Your task to perform on an android device: Open maps Image 0: 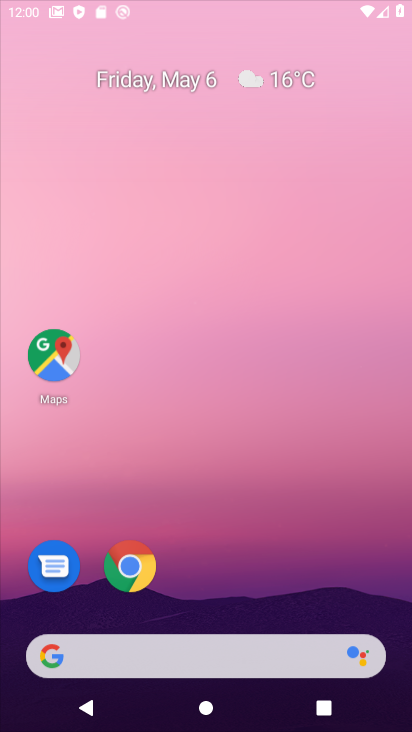
Step 0: click (313, 42)
Your task to perform on an android device: Open maps Image 1: 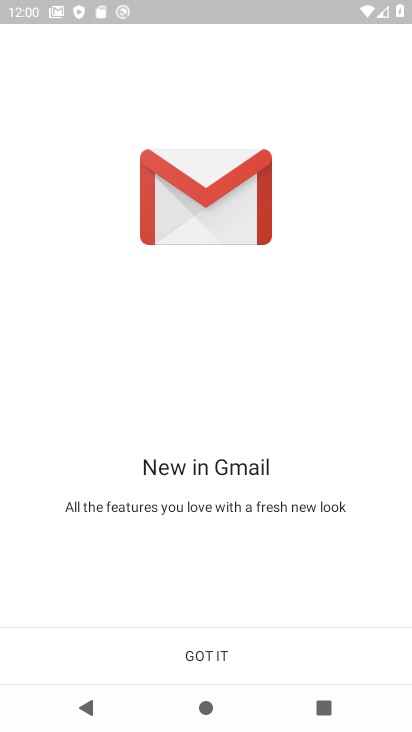
Step 1: press home button
Your task to perform on an android device: Open maps Image 2: 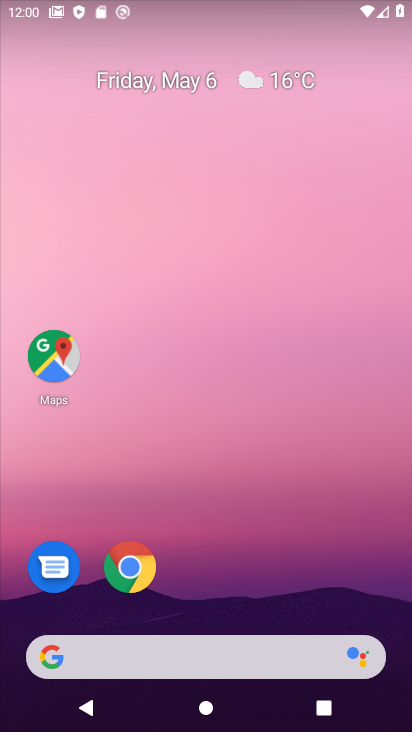
Step 2: drag from (263, 495) to (241, 7)
Your task to perform on an android device: Open maps Image 3: 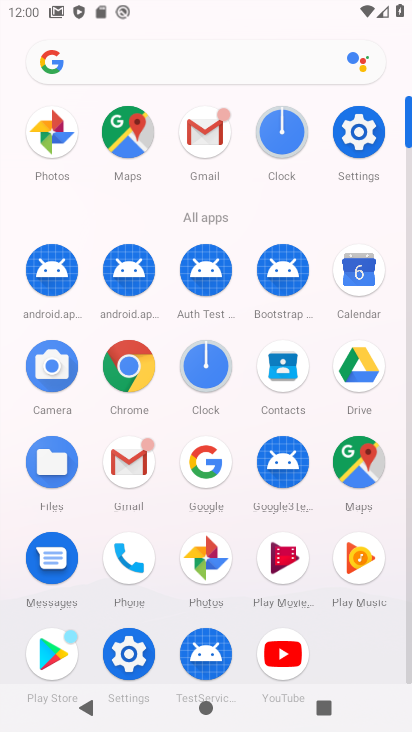
Step 3: click (268, 132)
Your task to perform on an android device: Open maps Image 4: 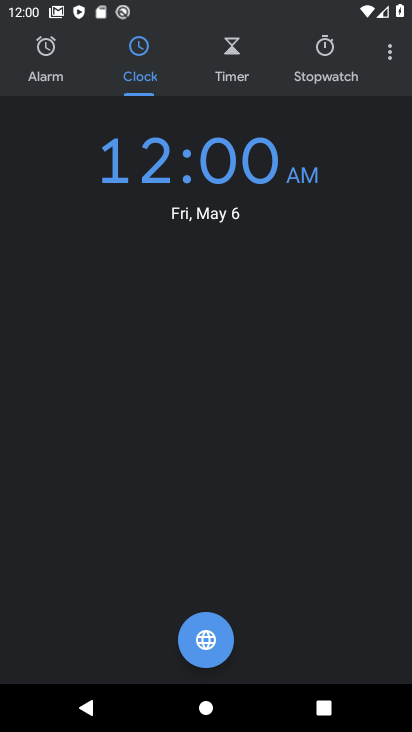
Step 4: press home button
Your task to perform on an android device: Open maps Image 5: 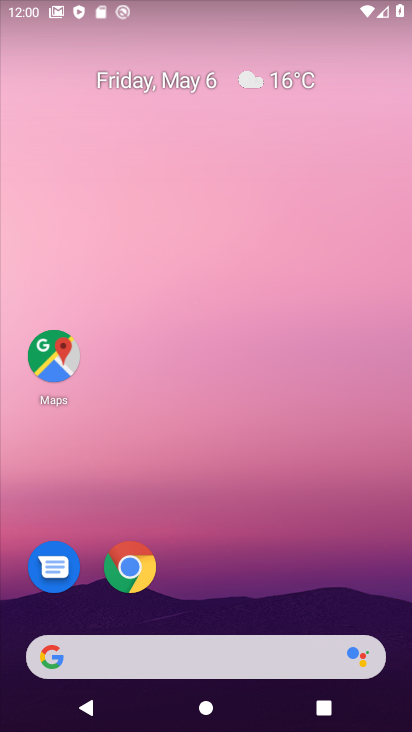
Step 5: drag from (319, 541) to (353, 69)
Your task to perform on an android device: Open maps Image 6: 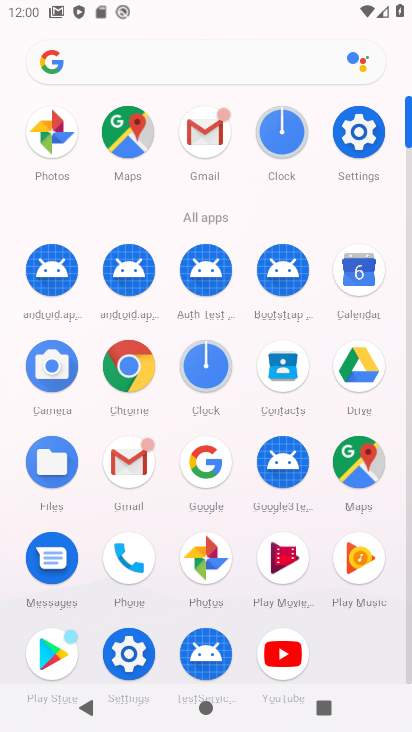
Step 6: click (125, 159)
Your task to perform on an android device: Open maps Image 7: 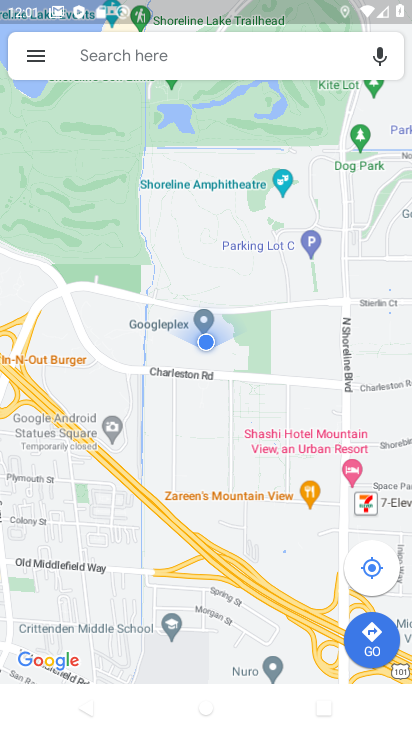
Step 7: task complete